Your task to perform on an android device: Search for a new lawnmower on home depot Image 0: 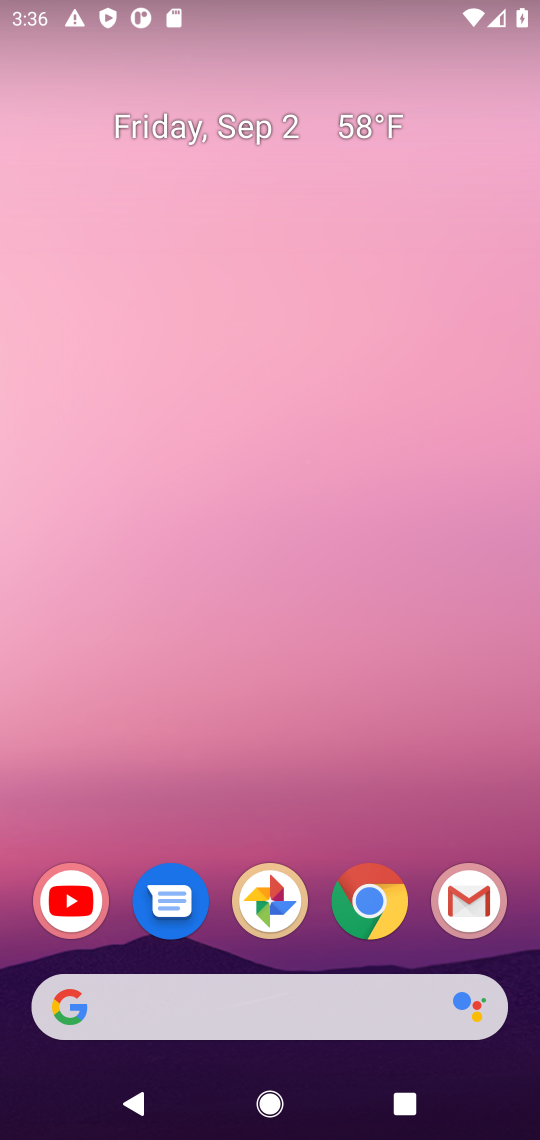
Step 0: drag from (343, 661) to (142, 17)
Your task to perform on an android device: Search for a new lawnmower on home depot Image 1: 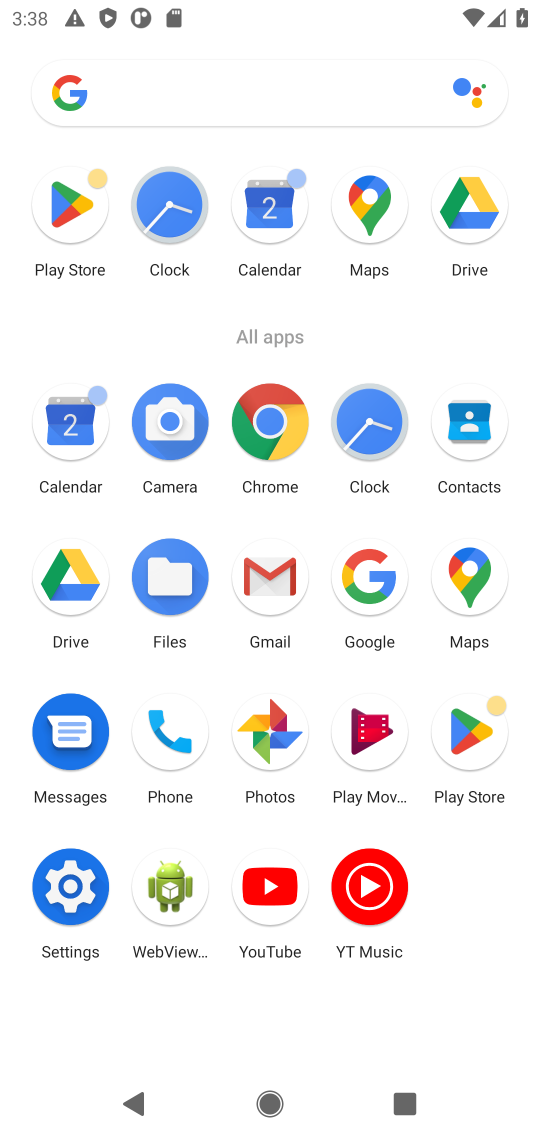
Step 1: click (374, 592)
Your task to perform on an android device: Search for a new lawnmower on home depot Image 2: 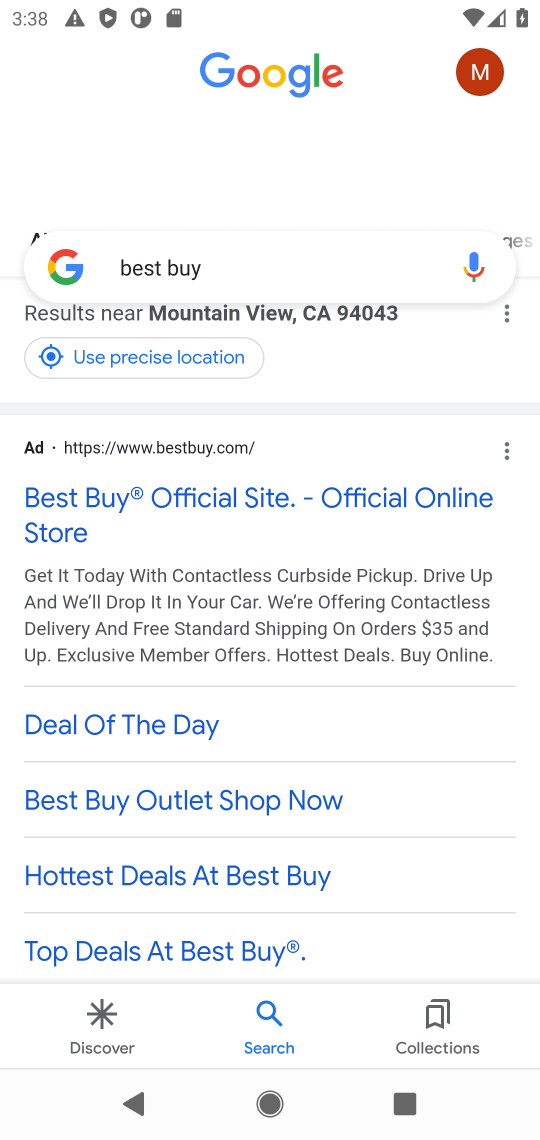
Step 2: press back button
Your task to perform on an android device: Search for a new lawnmower on home depot Image 3: 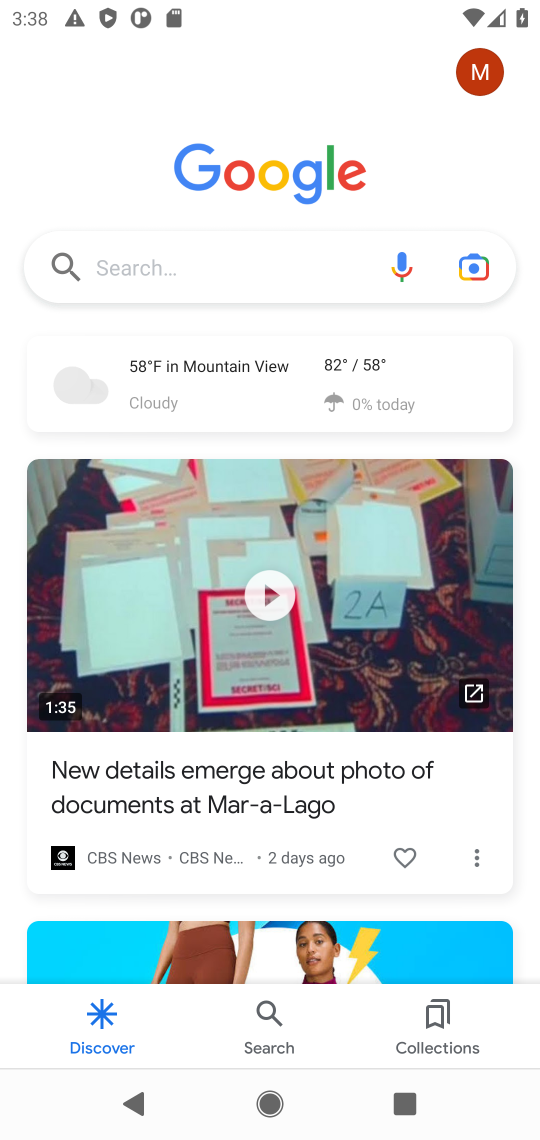
Step 3: click (188, 257)
Your task to perform on an android device: Search for a new lawnmower on home depot Image 4: 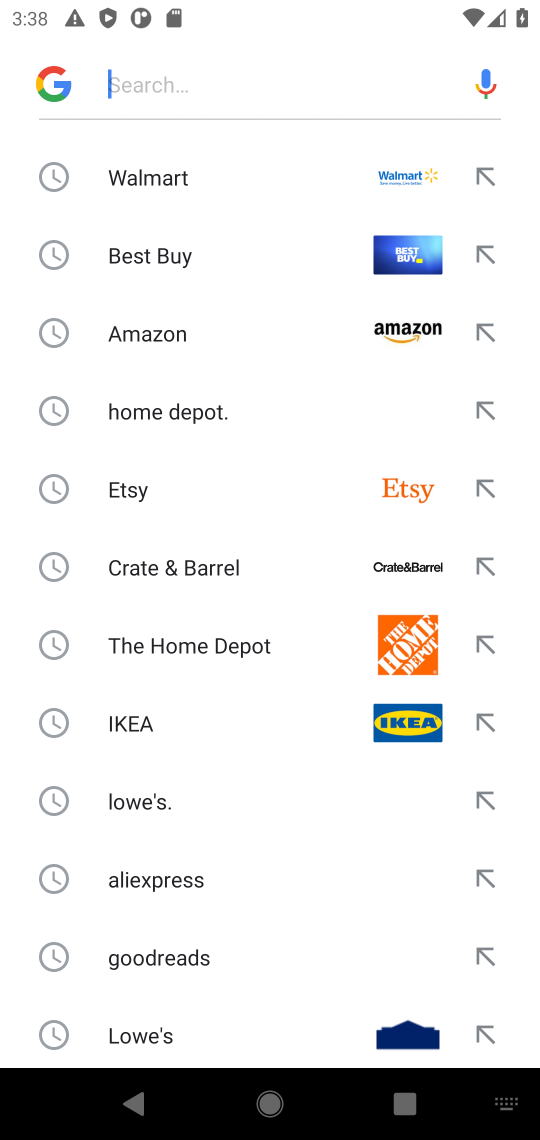
Step 4: click (187, 408)
Your task to perform on an android device: Search for a new lawnmower on home depot Image 5: 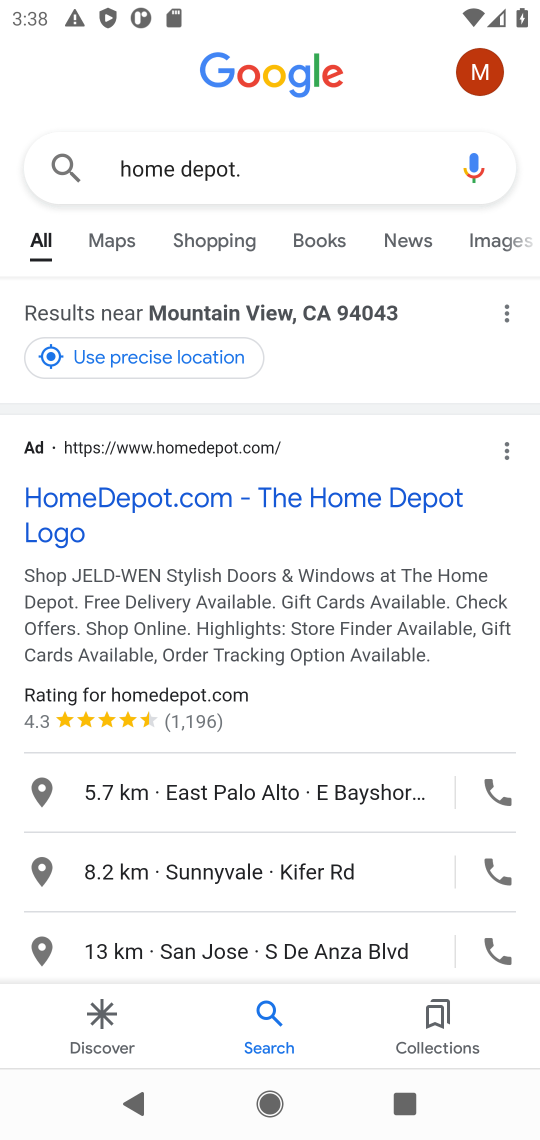
Step 5: click (383, 534)
Your task to perform on an android device: Search for a new lawnmower on home depot Image 6: 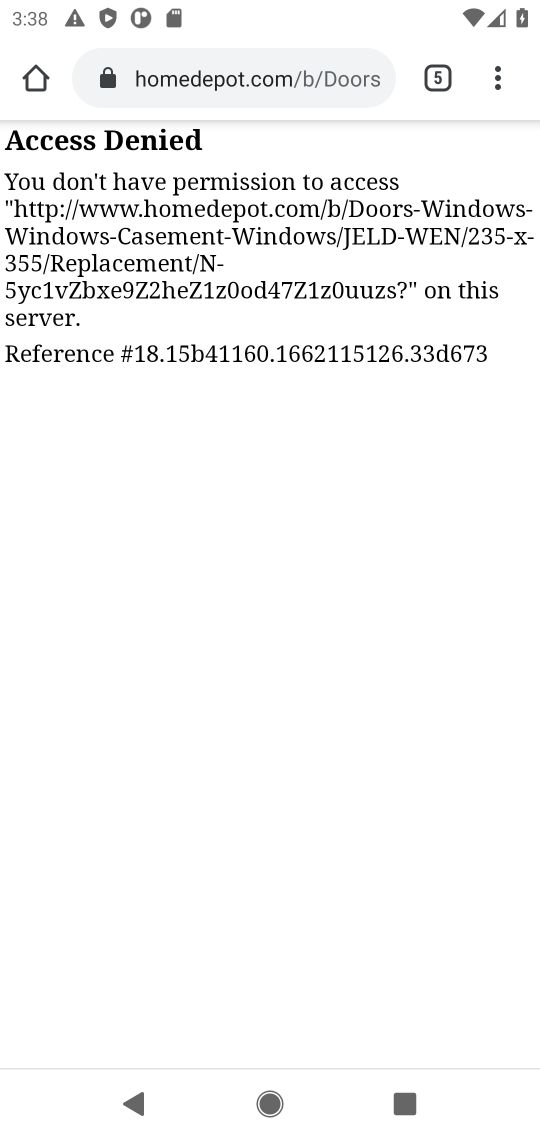
Step 6: task complete